Your task to perform on an android device: Search for vegetarian restaurants on Maps Image 0: 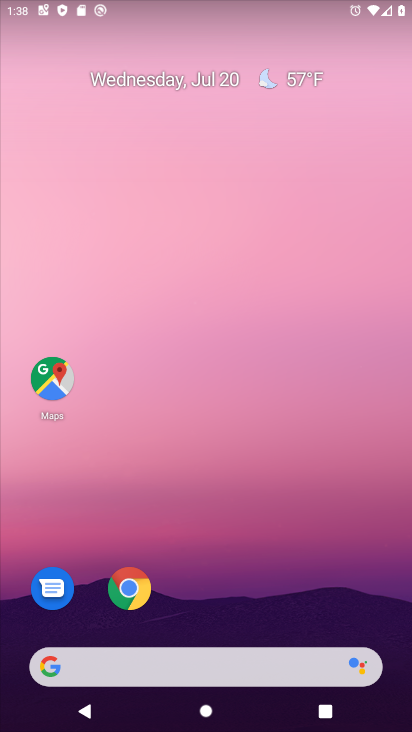
Step 0: press home button
Your task to perform on an android device: Search for vegetarian restaurants on Maps Image 1: 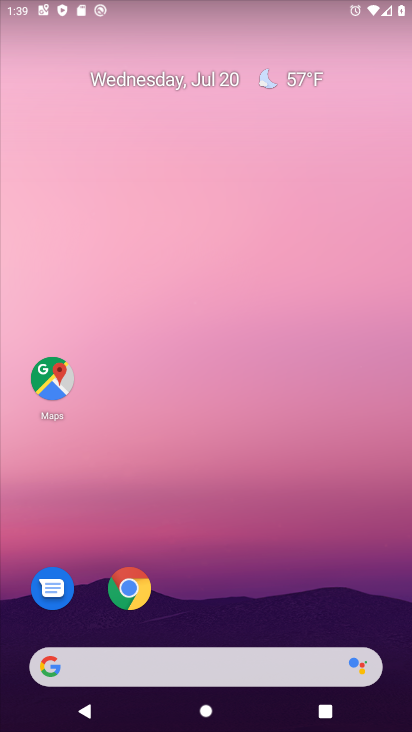
Step 1: click (46, 373)
Your task to perform on an android device: Search for vegetarian restaurants on Maps Image 2: 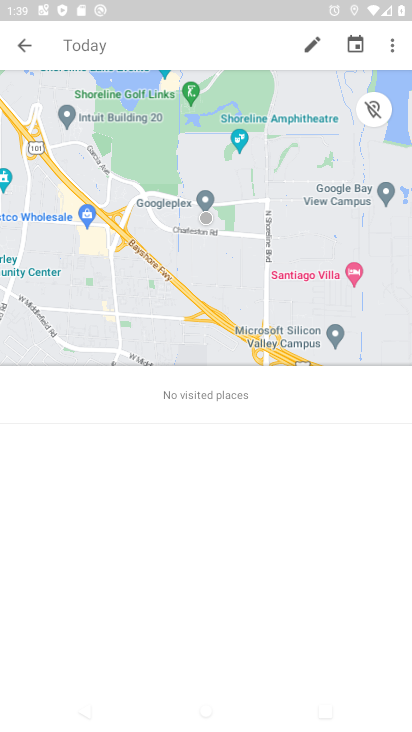
Step 2: click (6, 46)
Your task to perform on an android device: Search for vegetarian restaurants on Maps Image 3: 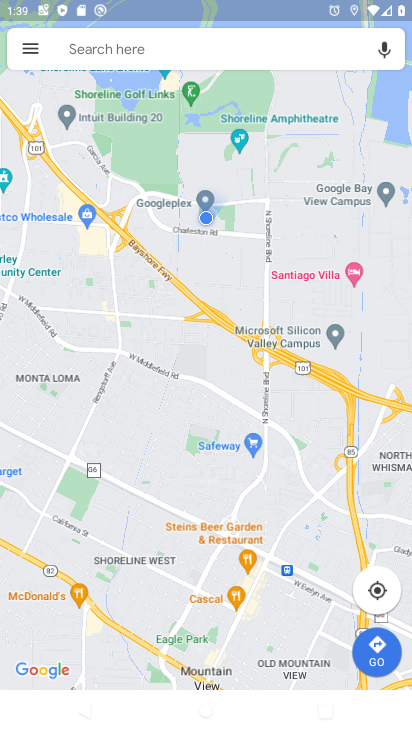
Step 3: click (201, 44)
Your task to perform on an android device: Search for vegetarian restaurants on Maps Image 4: 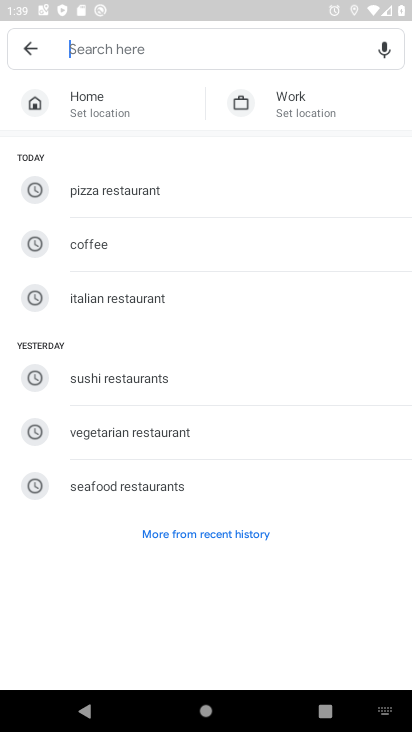
Step 4: type "vegetarian restaurants"
Your task to perform on an android device: Search for vegetarian restaurants on Maps Image 5: 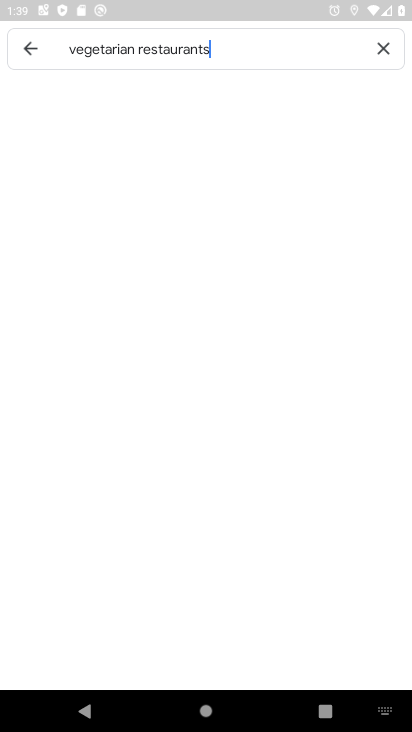
Step 5: type ""
Your task to perform on an android device: Search for vegetarian restaurants on Maps Image 6: 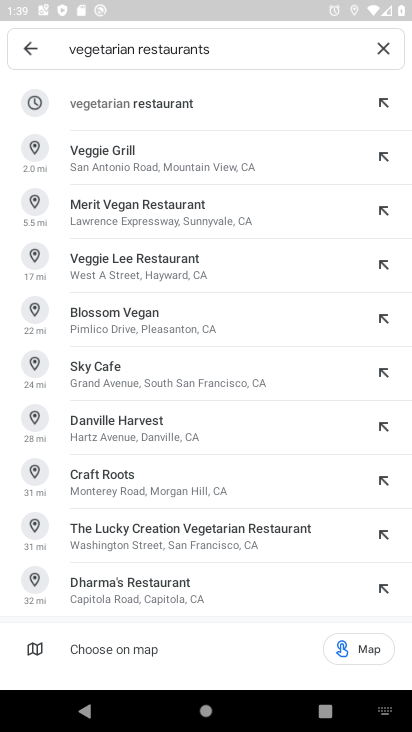
Step 6: click (228, 94)
Your task to perform on an android device: Search for vegetarian restaurants on Maps Image 7: 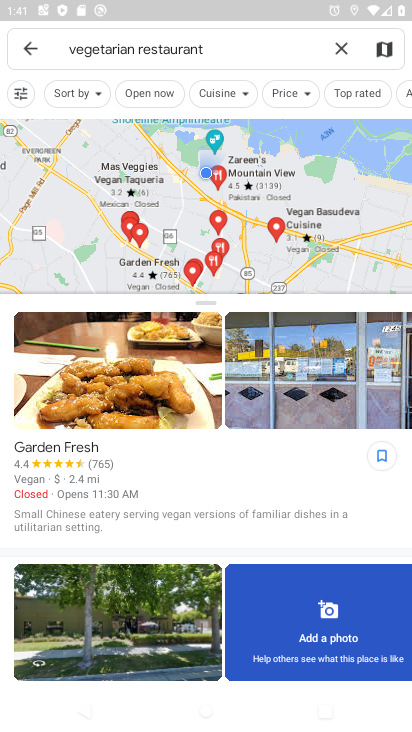
Step 7: task complete